Your task to perform on an android device: open the mobile data screen to see how much data has been used Image 0: 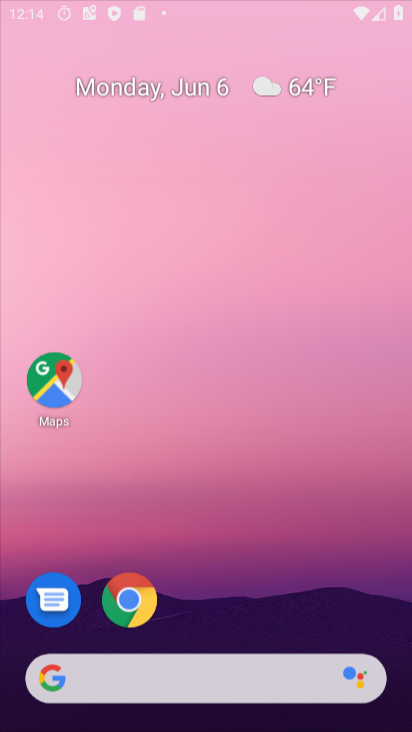
Step 0: click (233, 136)
Your task to perform on an android device: open the mobile data screen to see how much data has been used Image 1: 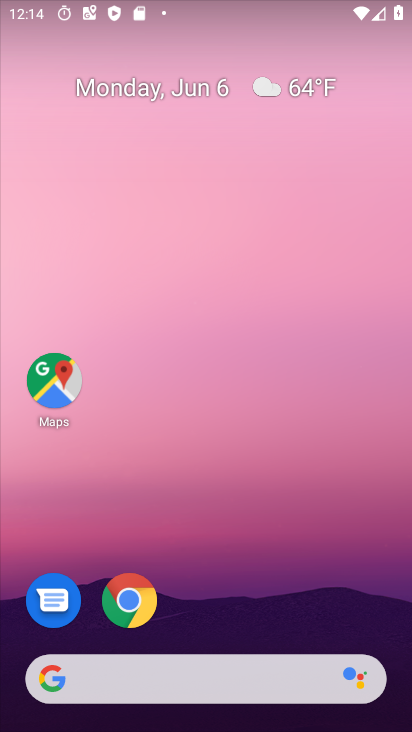
Step 1: drag from (236, 675) to (217, 94)
Your task to perform on an android device: open the mobile data screen to see how much data has been used Image 2: 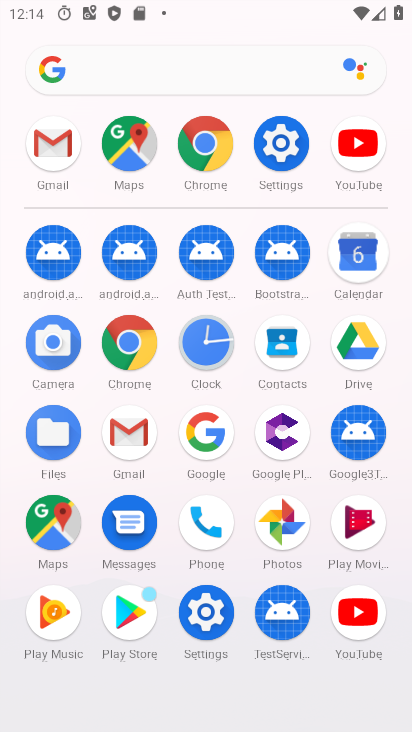
Step 2: click (275, 142)
Your task to perform on an android device: open the mobile data screen to see how much data has been used Image 3: 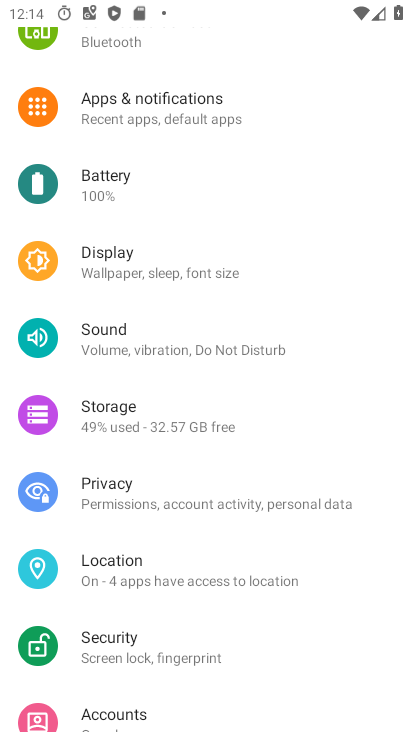
Step 3: drag from (148, 119) to (148, 442)
Your task to perform on an android device: open the mobile data screen to see how much data has been used Image 4: 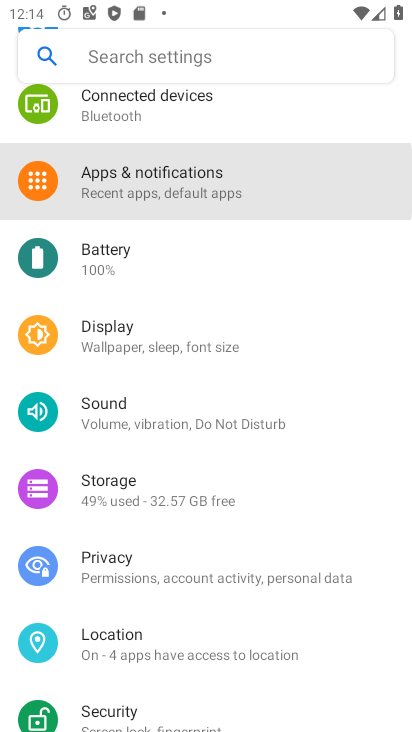
Step 4: drag from (148, 150) to (209, 623)
Your task to perform on an android device: open the mobile data screen to see how much data has been used Image 5: 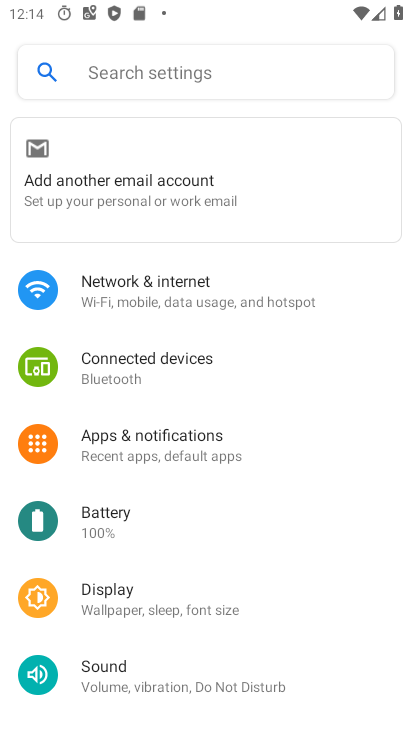
Step 5: click (166, 295)
Your task to perform on an android device: open the mobile data screen to see how much data has been used Image 6: 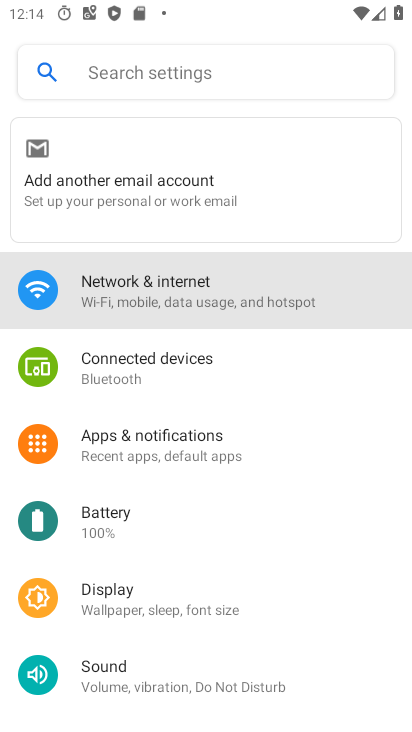
Step 6: click (164, 294)
Your task to perform on an android device: open the mobile data screen to see how much data has been used Image 7: 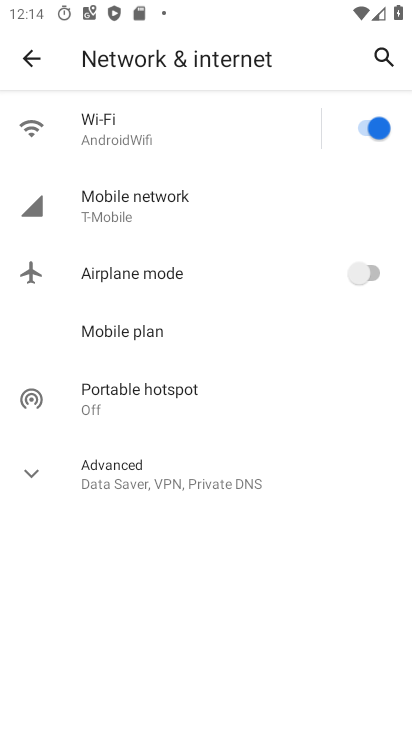
Step 7: task complete